Your task to perform on an android device: Go to wifi settings Image 0: 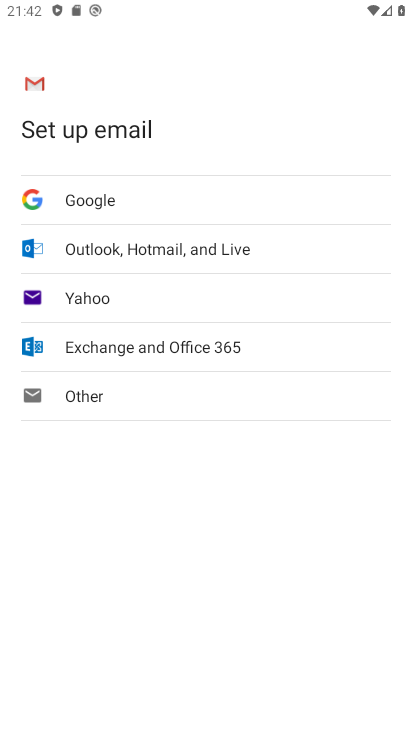
Step 0: press back button
Your task to perform on an android device: Go to wifi settings Image 1: 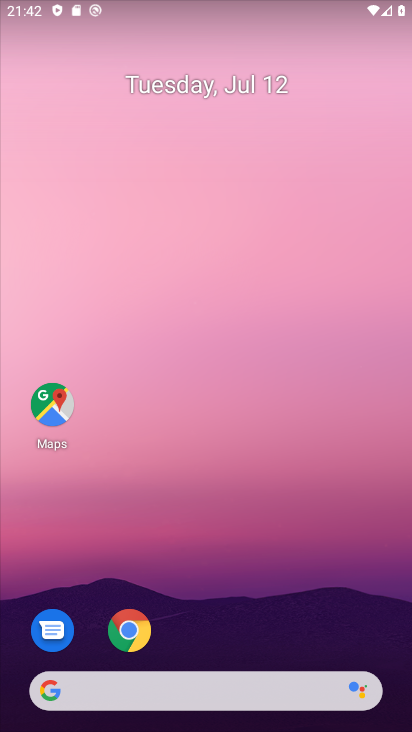
Step 1: drag from (106, 5) to (163, 621)
Your task to perform on an android device: Go to wifi settings Image 2: 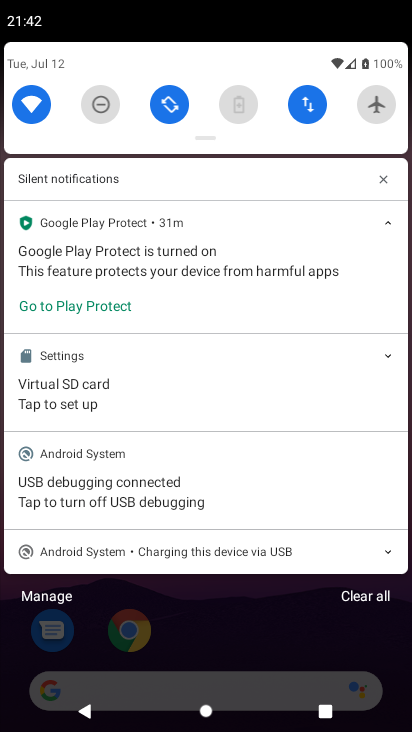
Step 2: click (26, 114)
Your task to perform on an android device: Go to wifi settings Image 3: 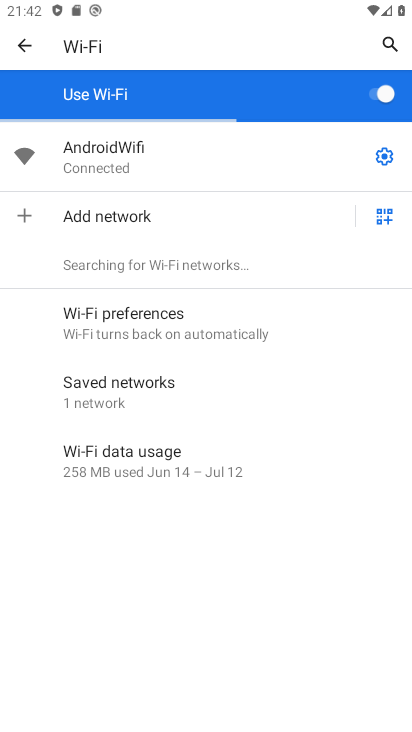
Step 3: task complete